Your task to perform on an android device: Open Google Image 0: 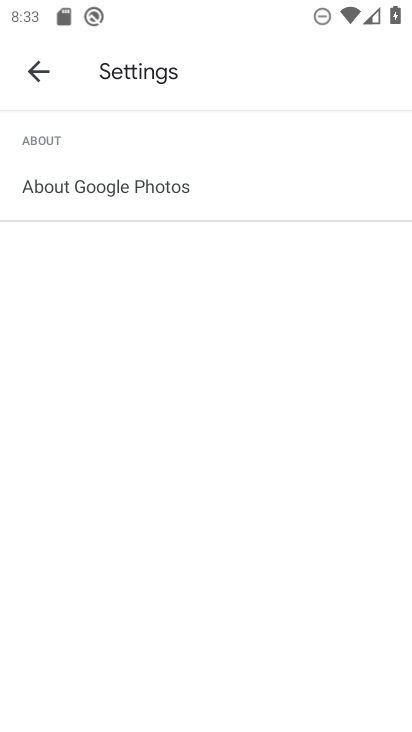
Step 0: press home button
Your task to perform on an android device: Open Google Image 1: 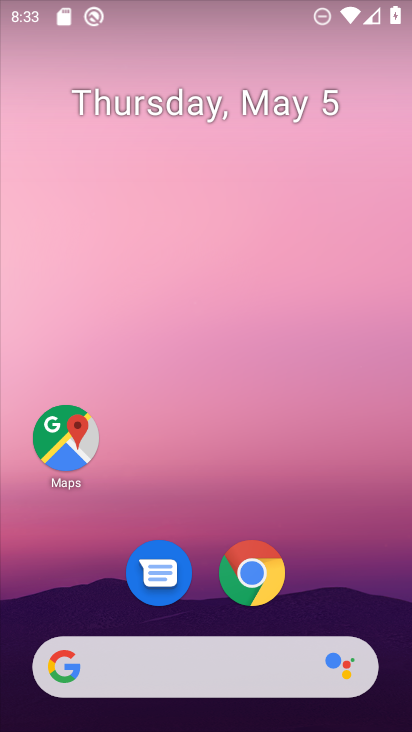
Step 1: click (183, 675)
Your task to perform on an android device: Open Google Image 2: 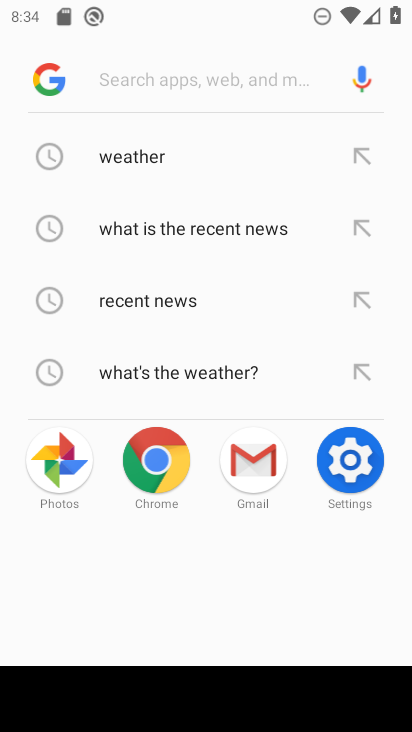
Step 2: type "google"
Your task to perform on an android device: Open Google Image 3: 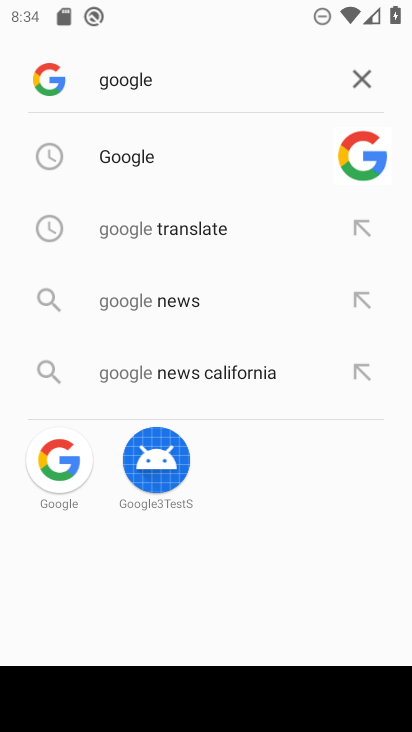
Step 3: click (180, 164)
Your task to perform on an android device: Open Google Image 4: 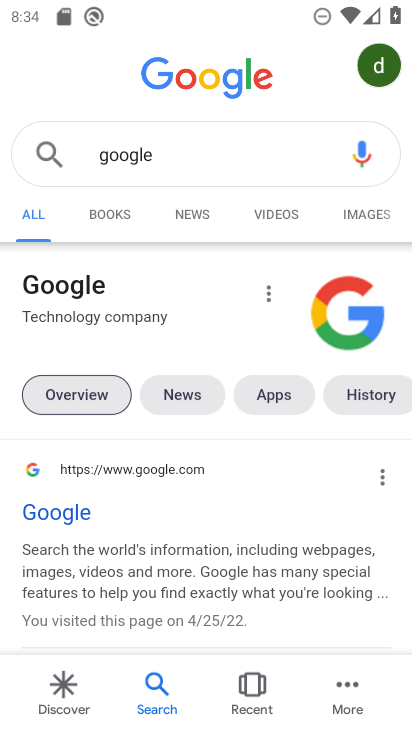
Step 4: task complete